Your task to perform on an android device: delete browsing data in the chrome app Image 0: 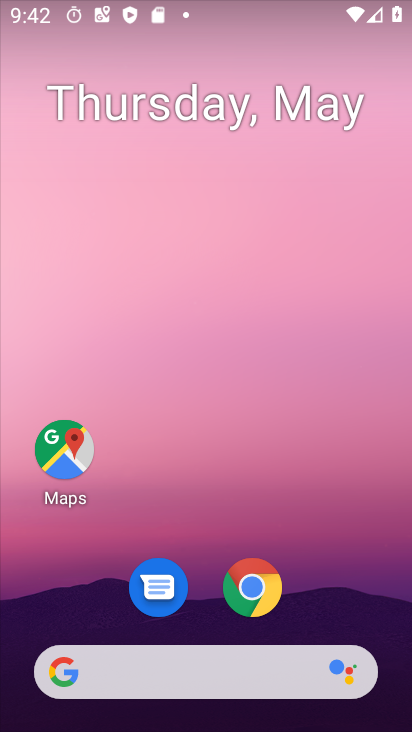
Step 0: click (278, 593)
Your task to perform on an android device: delete browsing data in the chrome app Image 1: 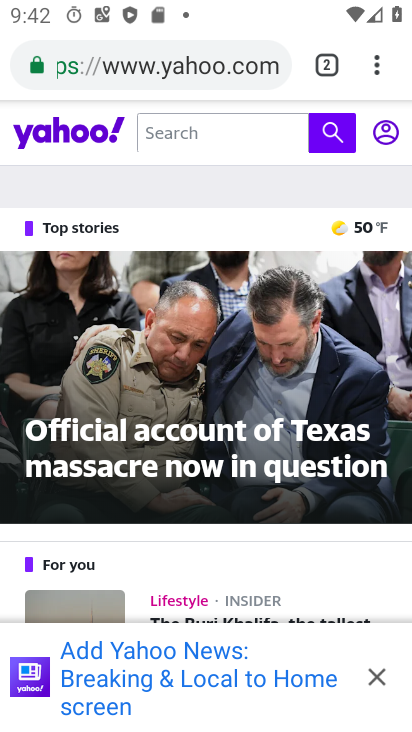
Step 1: click (378, 69)
Your task to perform on an android device: delete browsing data in the chrome app Image 2: 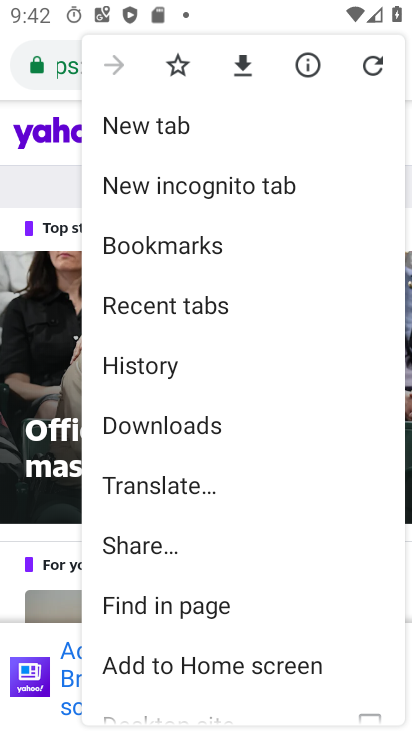
Step 2: drag from (325, 620) to (303, 233)
Your task to perform on an android device: delete browsing data in the chrome app Image 3: 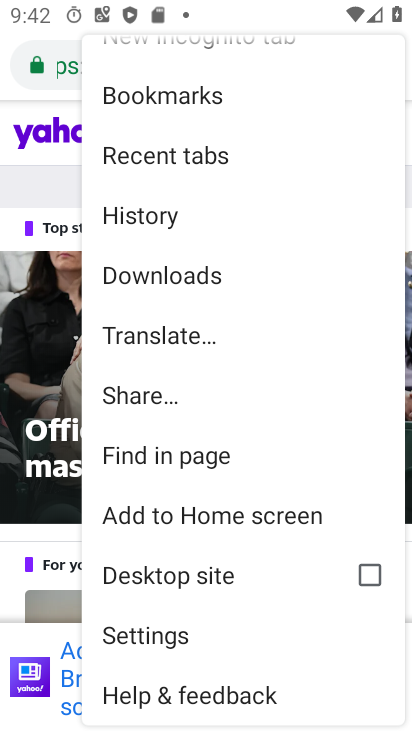
Step 3: click (144, 635)
Your task to perform on an android device: delete browsing data in the chrome app Image 4: 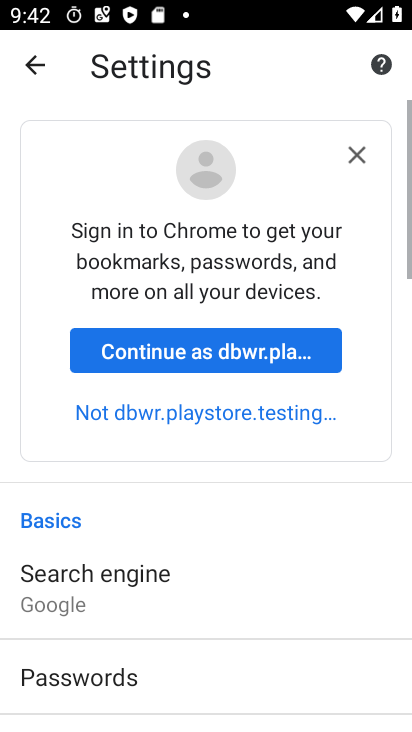
Step 4: drag from (192, 627) to (202, 147)
Your task to perform on an android device: delete browsing data in the chrome app Image 5: 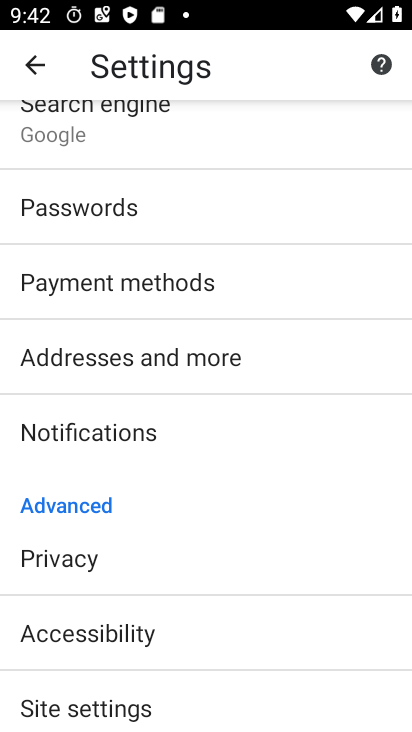
Step 5: click (44, 561)
Your task to perform on an android device: delete browsing data in the chrome app Image 6: 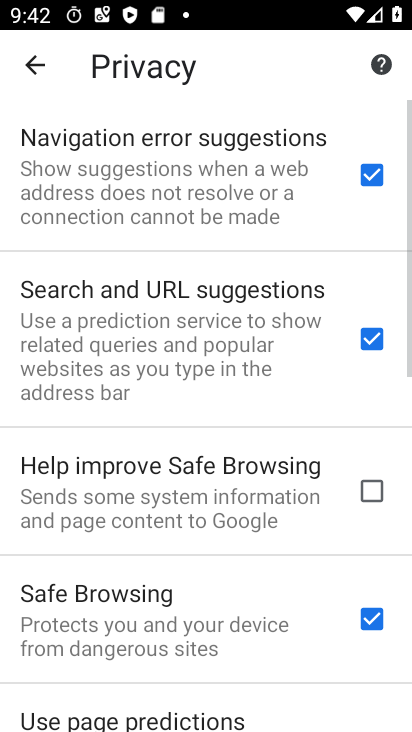
Step 6: drag from (152, 634) to (147, 183)
Your task to perform on an android device: delete browsing data in the chrome app Image 7: 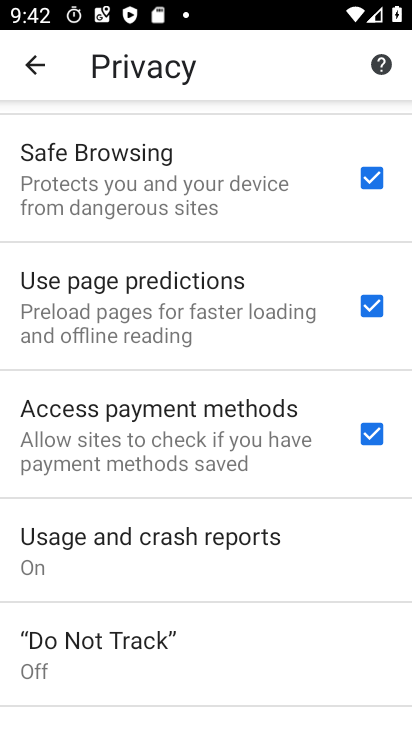
Step 7: drag from (114, 570) to (136, 127)
Your task to perform on an android device: delete browsing data in the chrome app Image 8: 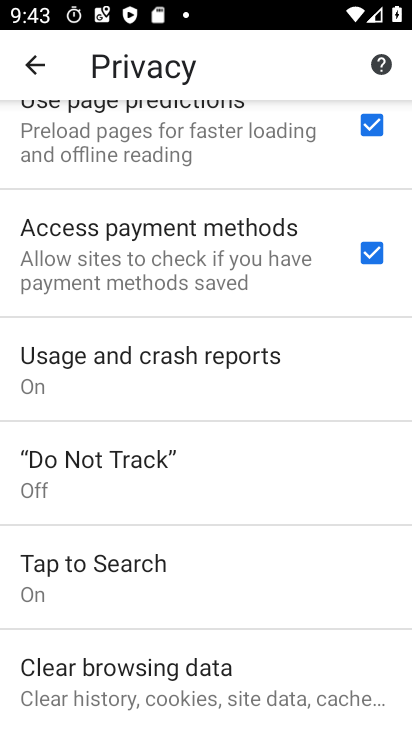
Step 8: click (120, 690)
Your task to perform on an android device: delete browsing data in the chrome app Image 9: 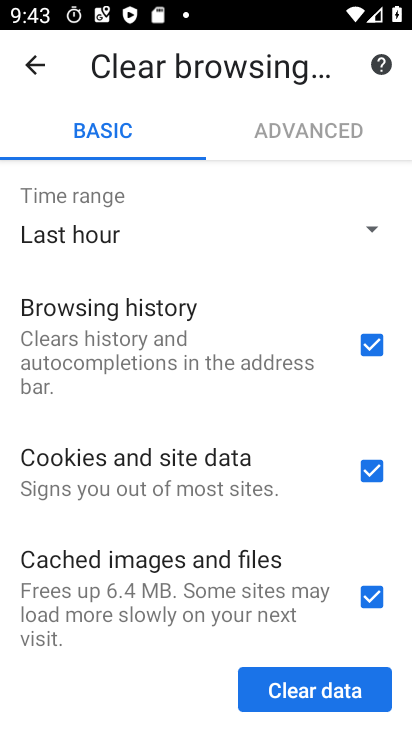
Step 9: click (356, 474)
Your task to perform on an android device: delete browsing data in the chrome app Image 10: 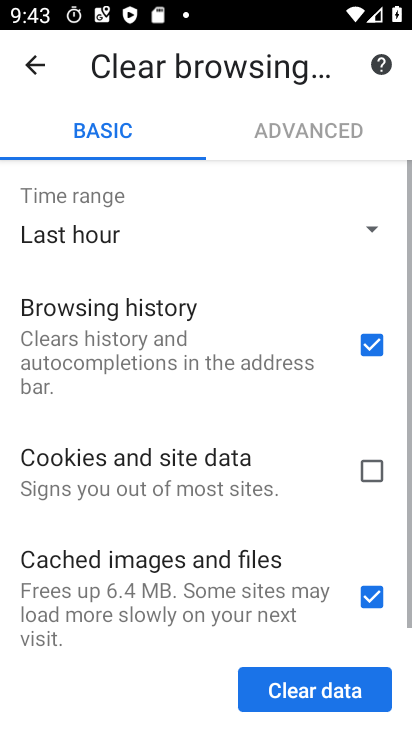
Step 10: click (371, 590)
Your task to perform on an android device: delete browsing data in the chrome app Image 11: 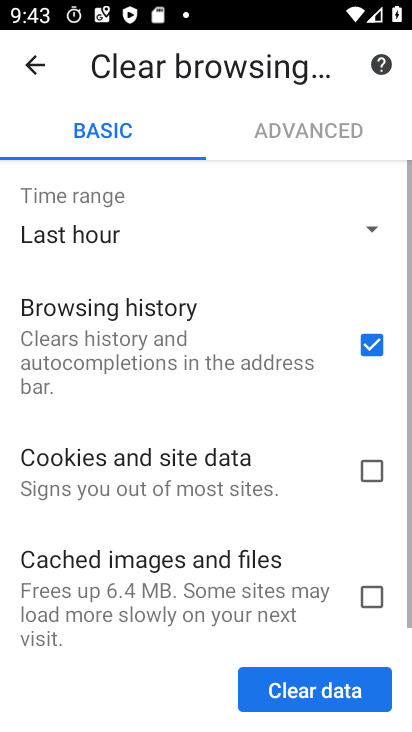
Step 11: drag from (169, 542) to (183, 366)
Your task to perform on an android device: delete browsing data in the chrome app Image 12: 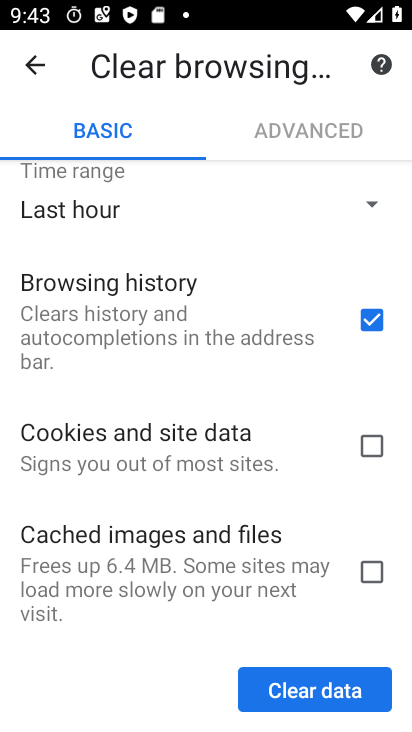
Step 12: click (315, 698)
Your task to perform on an android device: delete browsing data in the chrome app Image 13: 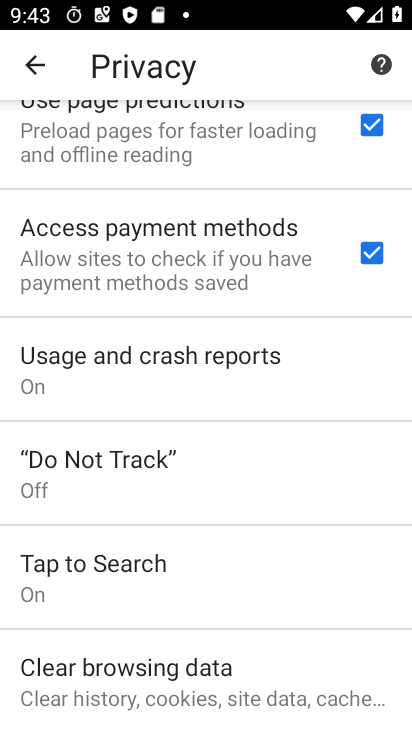
Step 13: task complete